Your task to perform on an android device: Open accessibility settings Image 0: 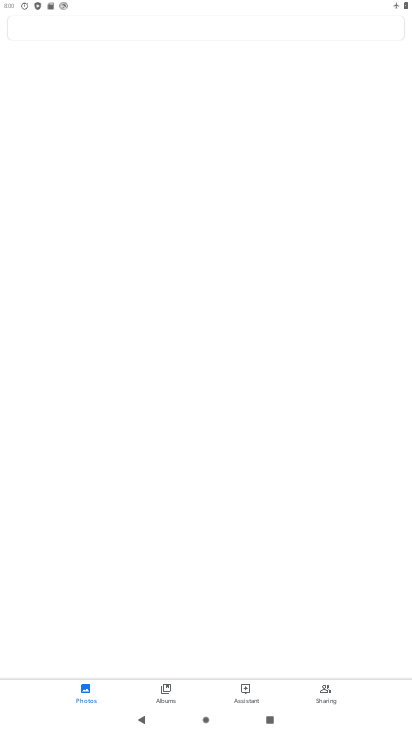
Step 0: drag from (240, 654) to (260, 92)
Your task to perform on an android device: Open accessibility settings Image 1: 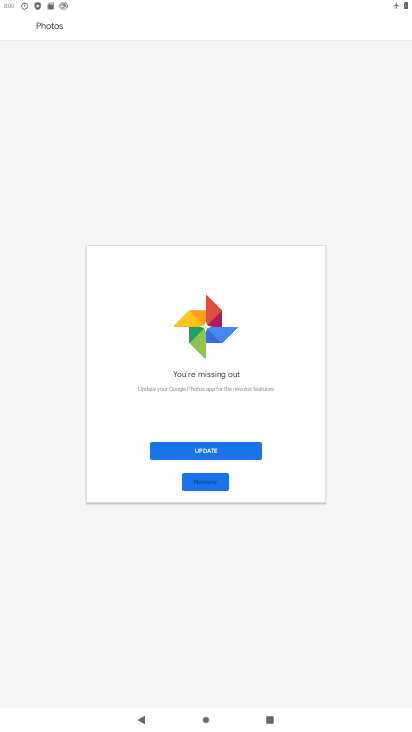
Step 1: press home button
Your task to perform on an android device: Open accessibility settings Image 2: 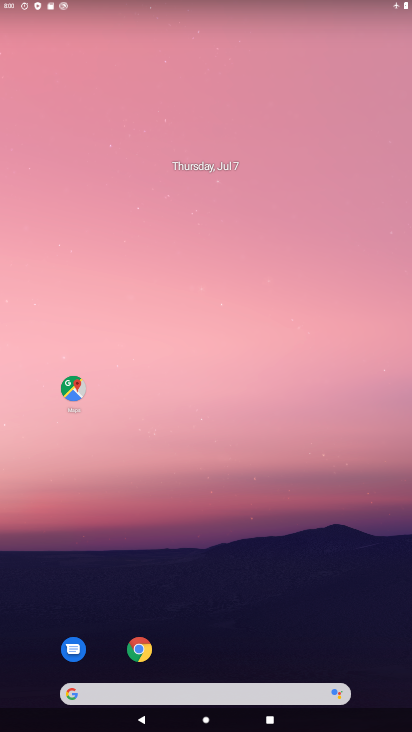
Step 2: drag from (218, 651) to (239, 97)
Your task to perform on an android device: Open accessibility settings Image 3: 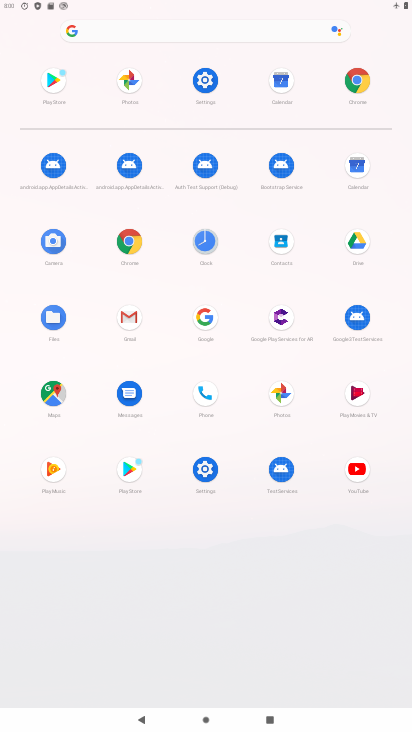
Step 3: click (203, 70)
Your task to perform on an android device: Open accessibility settings Image 4: 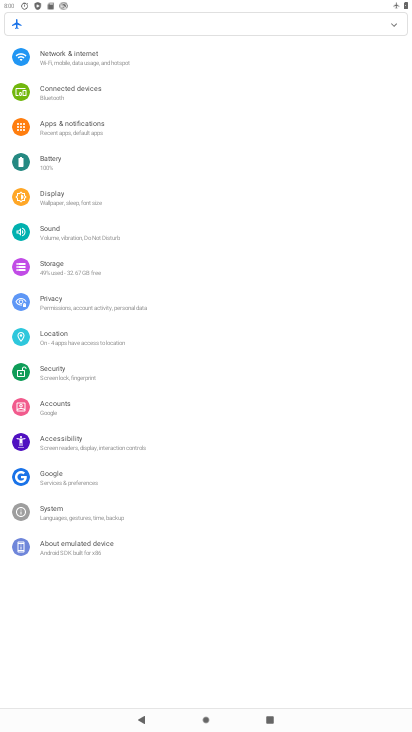
Step 4: click (93, 435)
Your task to perform on an android device: Open accessibility settings Image 5: 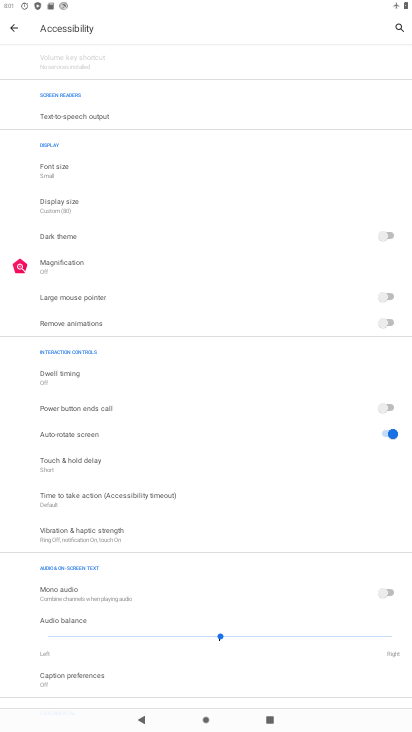
Step 5: task complete